Your task to perform on an android device: toggle notifications settings in the gmail app Image 0: 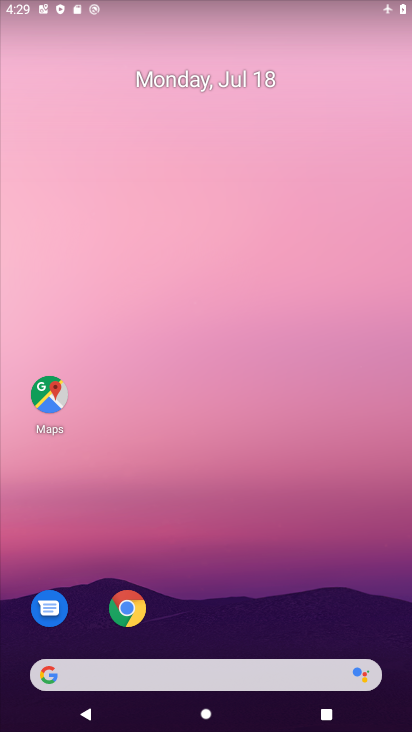
Step 0: drag from (271, 610) to (243, 101)
Your task to perform on an android device: toggle notifications settings in the gmail app Image 1: 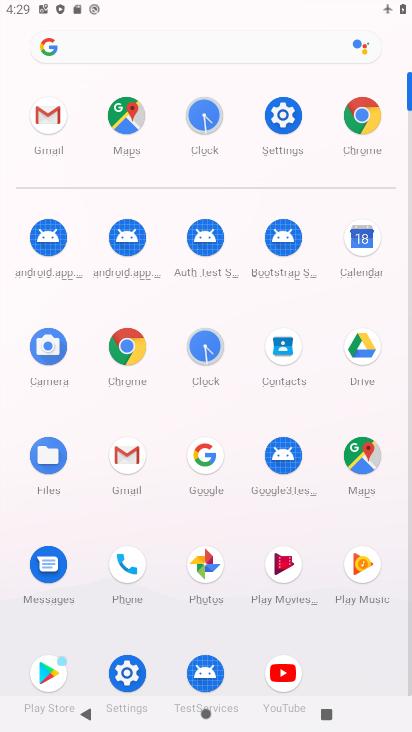
Step 1: click (42, 111)
Your task to perform on an android device: toggle notifications settings in the gmail app Image 2: 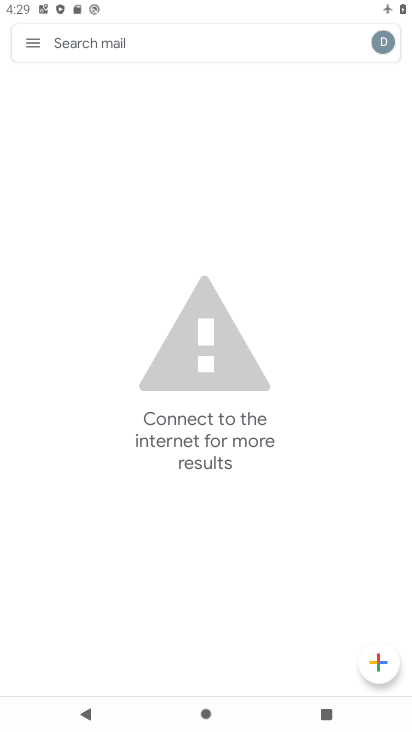
Step 2: click (32, 42)
Your task to perform on an android device: toggle notifications settings in the gmail app Image 3: 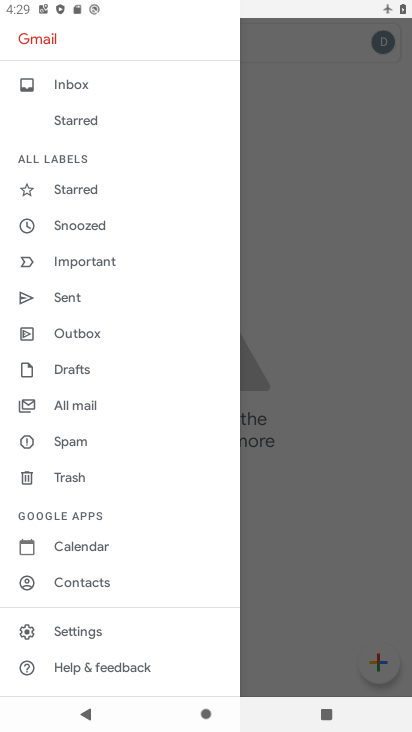
Step 3: click (67, 626)
Your task to perform on an android device: toggle notifications settings in the gmail app Image 4: 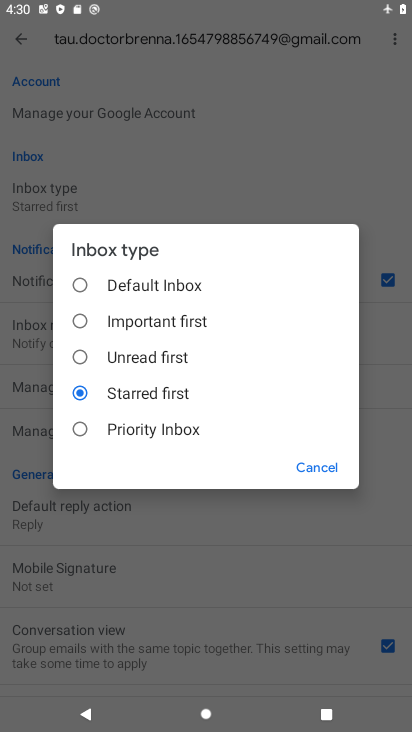
Step 4: click (308, 465)
Your task to perform on an android device: toggle notifications settings in the gmail app Image 5: 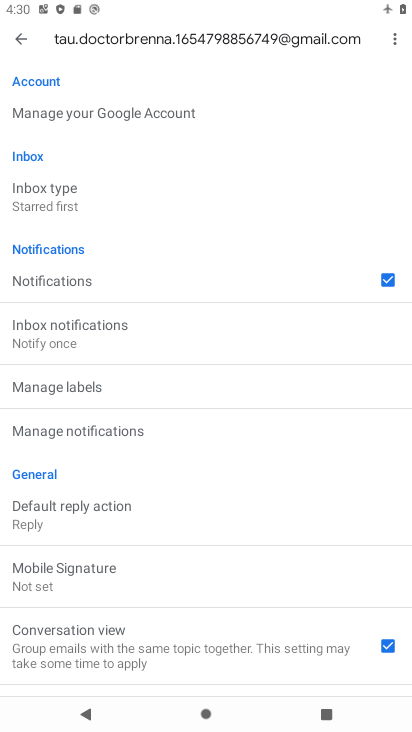
Step 5: click (37, 438)
Your task to perform on an android device: toggle notifications settings in the gmail app Image 6: 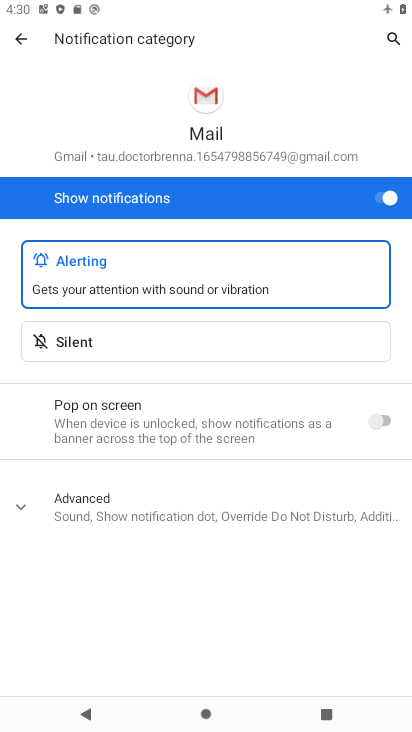
Step 6: click (383, 194)
Your task to perform on an android device: toggle notifications settings in the gmail app Image 7: 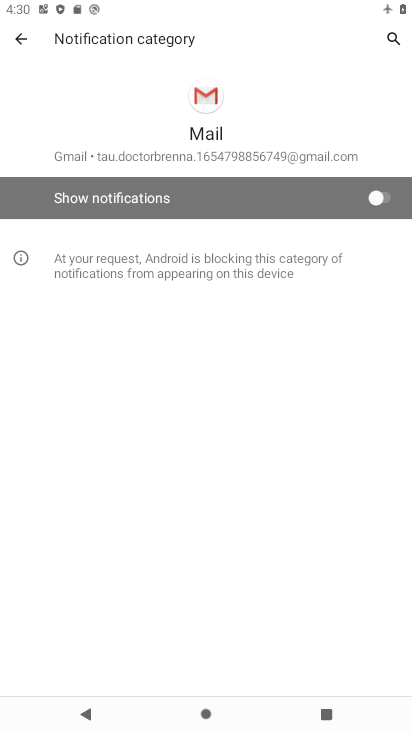
Step 7: task complete